Your task to perform on an android device: turn off wifi Image 0: 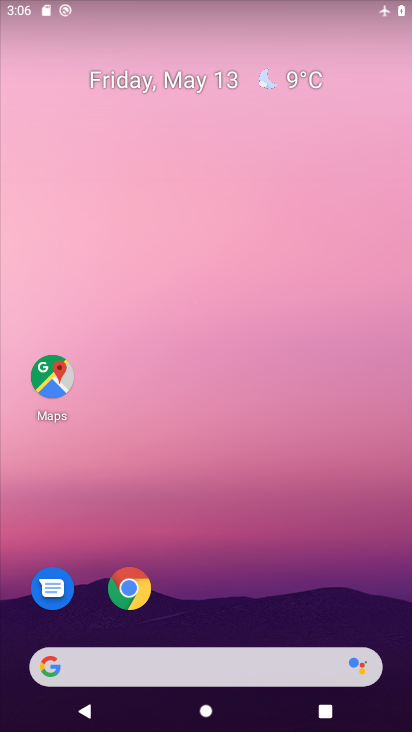
Step 0: drag from (344, 8) to (280, 628)
Your task to perform on an android device: turn off wifi Image 1: 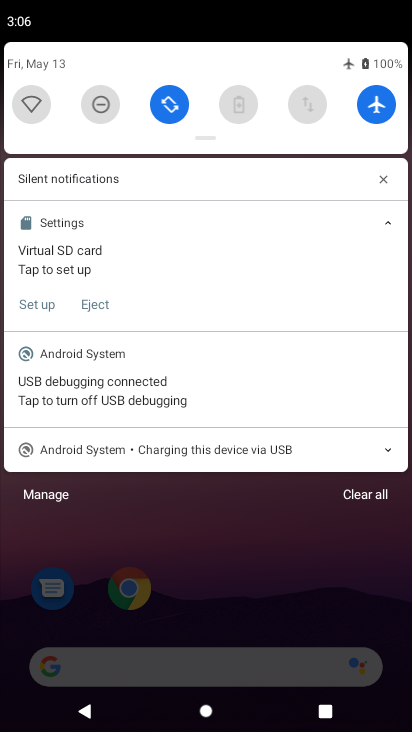
Step 1: task complete